Your task to perform on an android device: toggle translation in the chrome app Image 0: 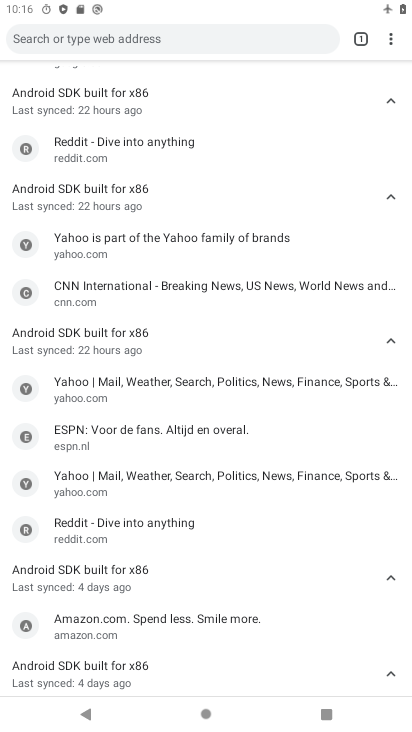
Step 0: drag from (390, 37) to (246, 324)
Your task to perform on an android device: toggle translation in the chrome app Image 1: 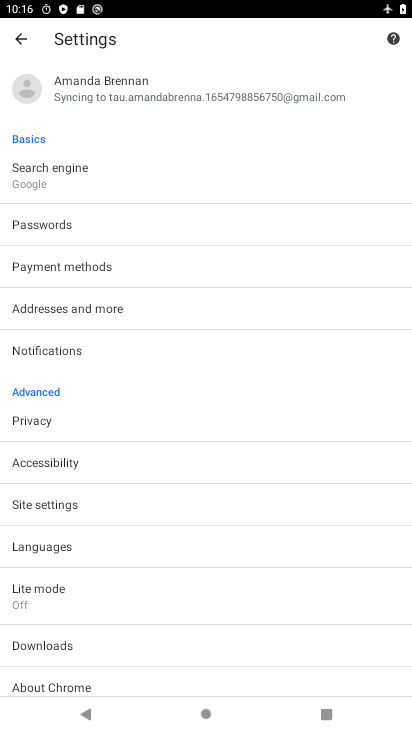
Step 1: click (64, 545)
Your task to perform on an android device: toggle translation in the chrome app Image 2: 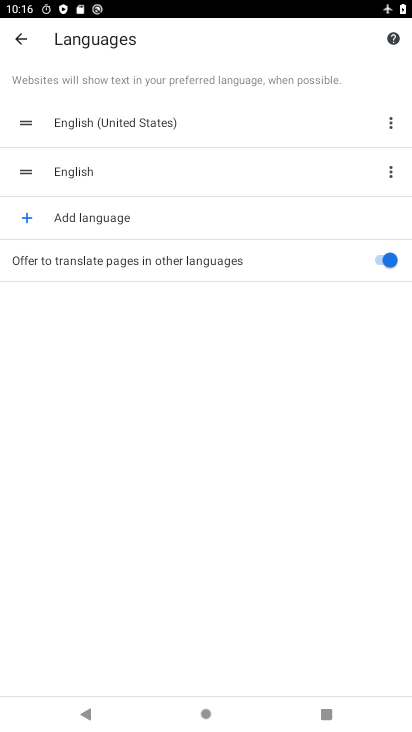
Step 2: click (379, 281)
Your task to perform on an android device: toggle translation in the chrome app Image 3: 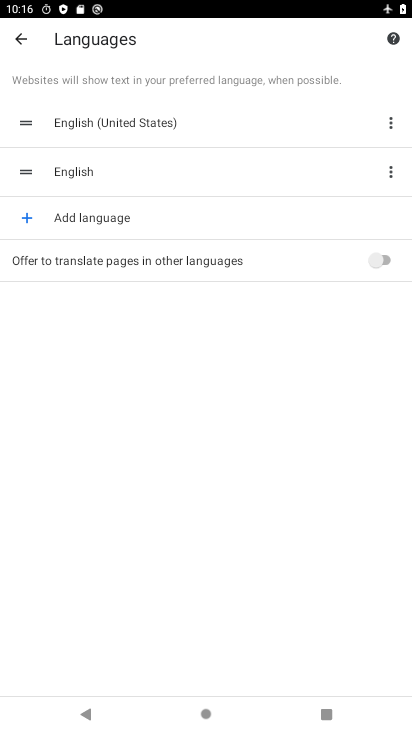
Step 3: task complete